Your task to perform on an android device: Open notification settings Image 0: 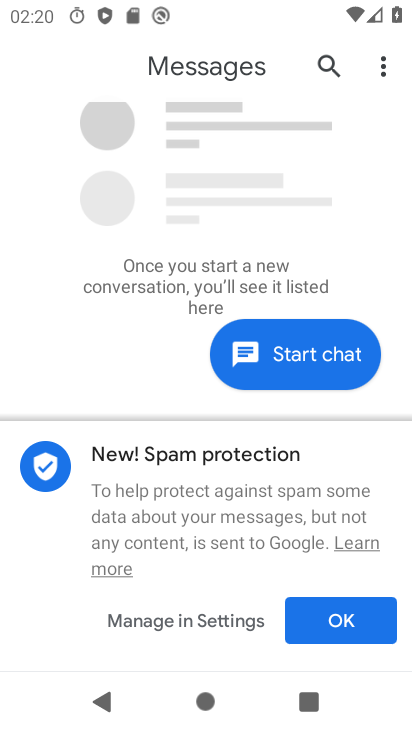
Step 0: press home button
Your task to perform on an android device: Open notification settings Image 1: 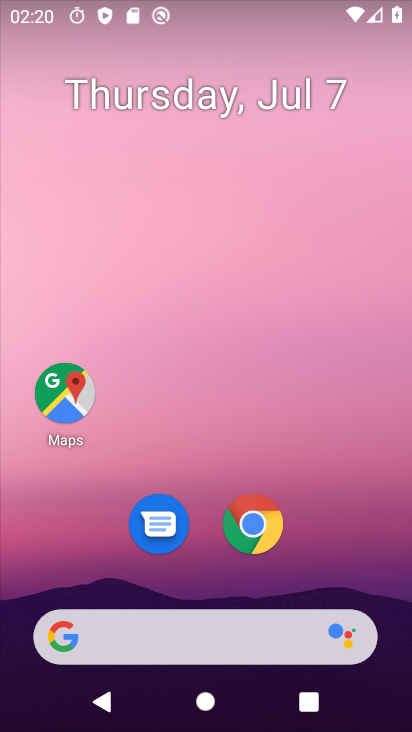
Step 1: drag from (232, 455) to (206, 0)
Your task to perform on an android device: Open notification settings Image 2: 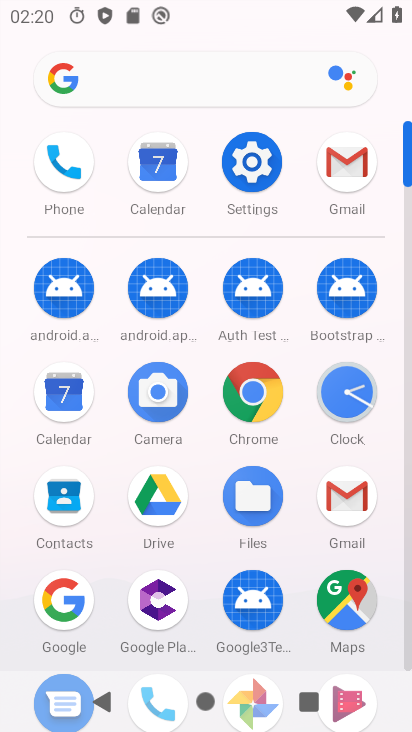
Step 2: click (247, 155)
Your task to perform on an android device: Open notification settings Image 3: 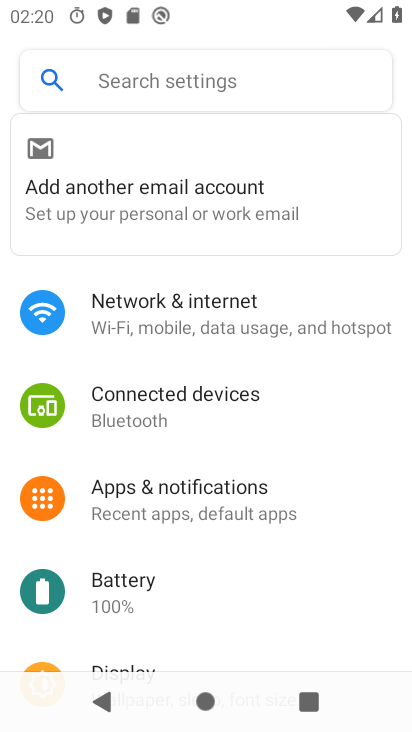
Step 3: click (212, 494)
Your task to perform on an android device: Open notification settings Image 4: 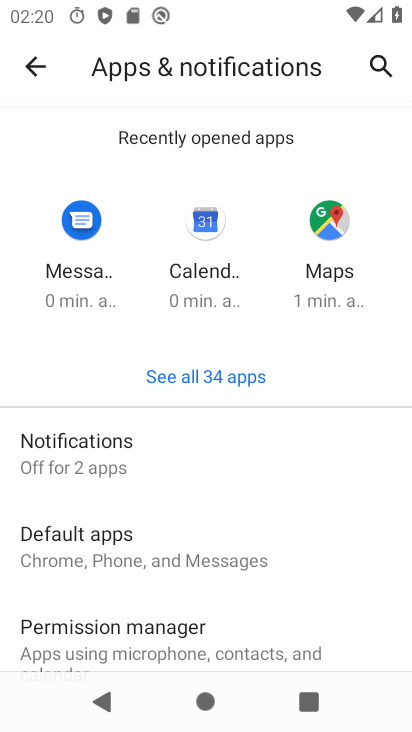
Step 4: task complete